Your task to perform on an android device: delete browsing data in the chrome app Image 0: 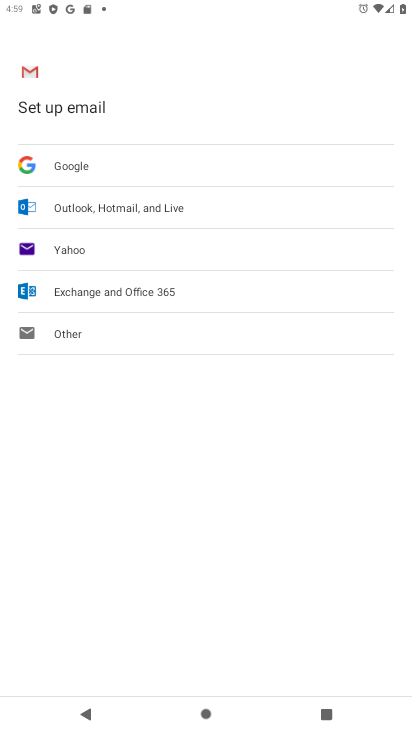
Step 0: press home button
Your task to perform on an android device: delete browsing data in the chrome app Image 1: 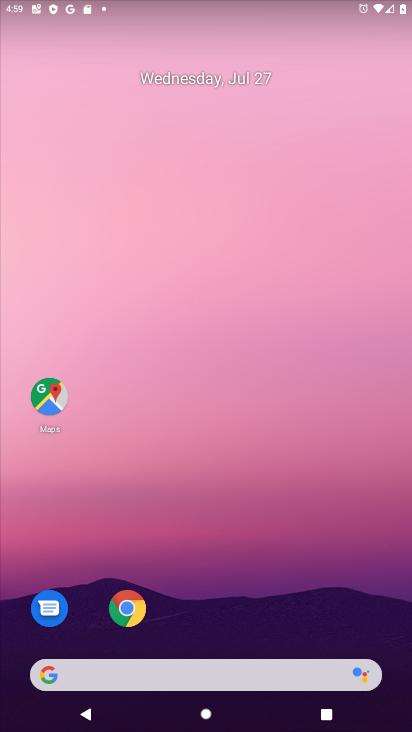
Step 1: click (142, 608)
Your task to perform on an android device: delete browsing data in the chrome app Image 2: 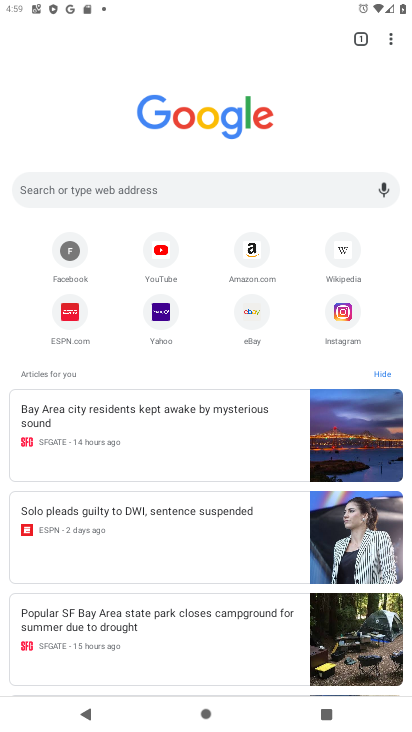
Step 2: click (387, 38)
Your task to perform on an android device: delete browsing data in the chrome app Image 3: 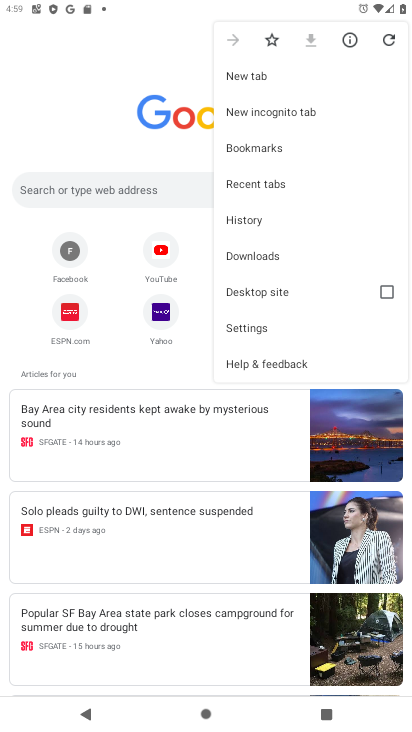
Step 3: click (250, 328)
Your task to perform on an android device: delete browsing data in the chrome app Image 4: 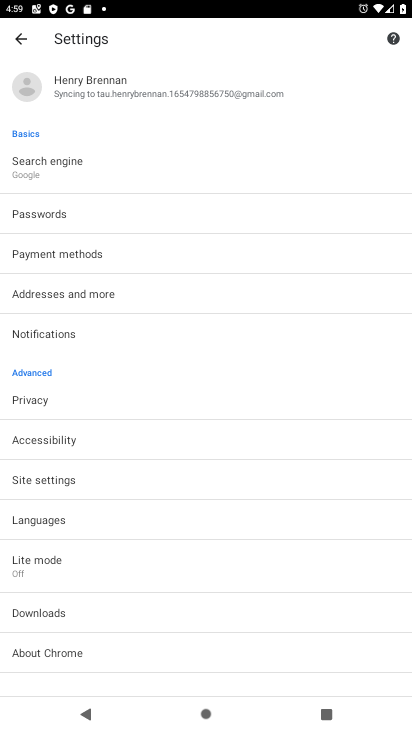
Step 4: click (43, 386)
Your task to perform on an android device: delete browsing data in the chrome app Image 5: 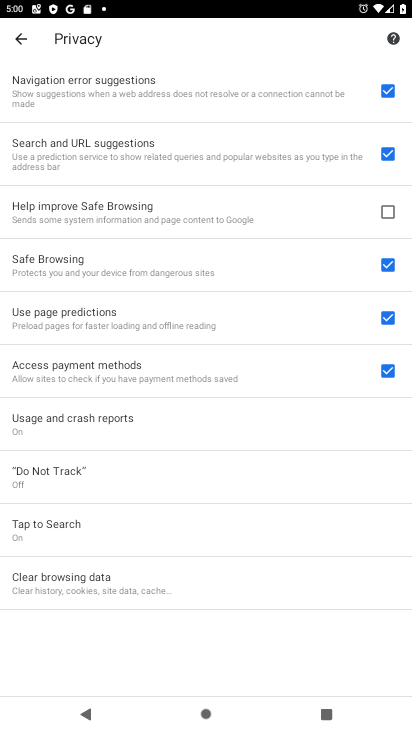
Step 5: click (51, 568)
Your task to perform on an android device: delete browsing data in the chrome app Image 6: 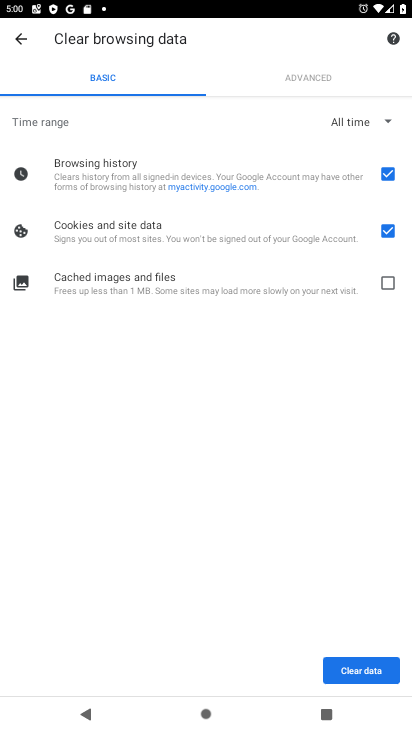
Step 6: click (379, 292)
Your task to perform on an android device: delete browsing data in the chrome app Image 7: 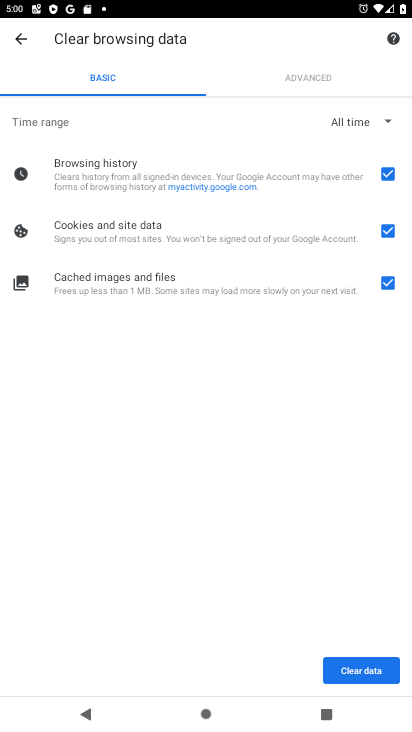
Step 7: click (367, 661)
Your task to perform on an android device: delete browsing data in the chrome app Image 8: 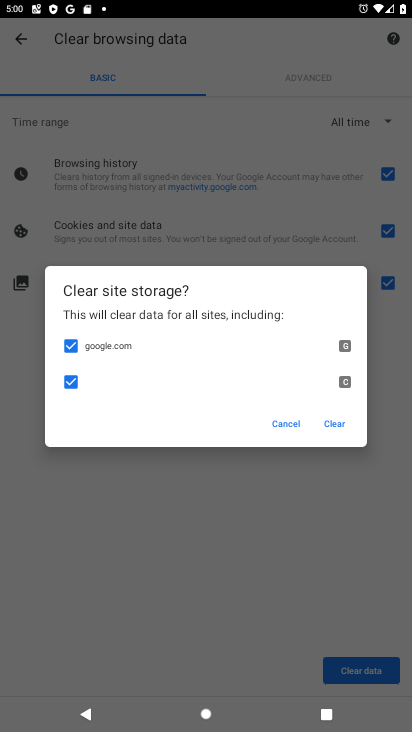
Step 8: click (333, 422)
Your task to perform on an android device: delete browsing data in the chrome app Image 9: 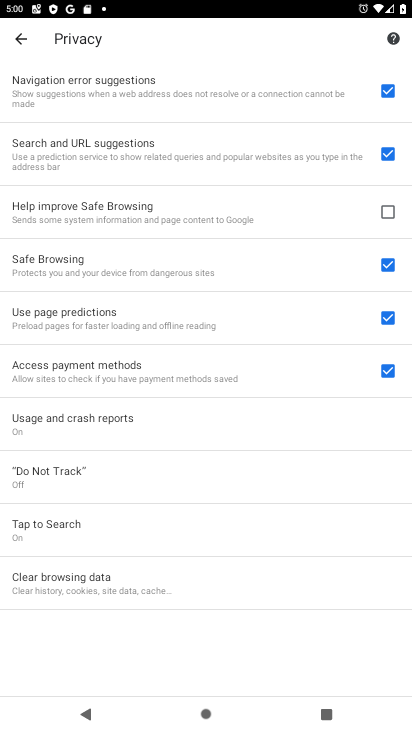
Step 9: task complete